Your task to perform on an android device: open wifi settings Image 0: 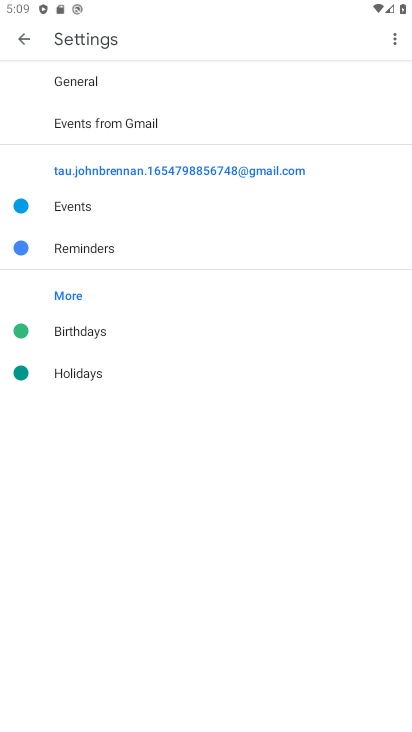
Step 0: click (20, 43)
Your task to perform on an android device: open wifi settings Image 1: 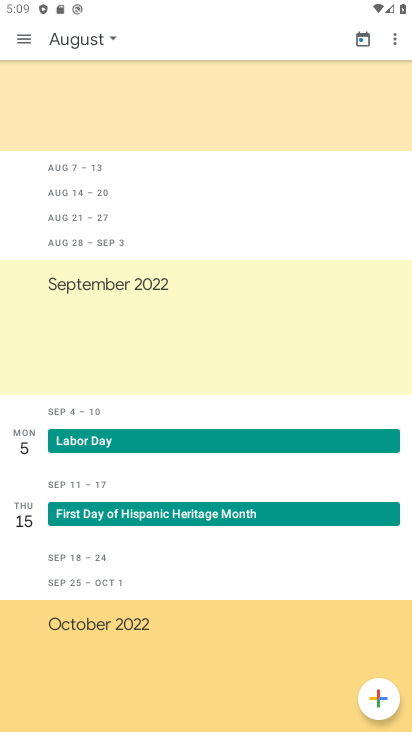
Step 1: press home button
Your task to perform on an android device: open wifi settings Image 2: 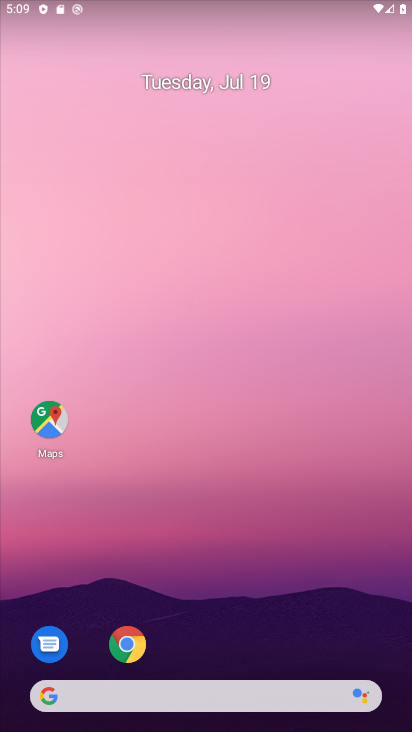
Step 2: drag from (274, 502) to (272, 140)
Your task to perform on an android device: open wifi settings Image 3: 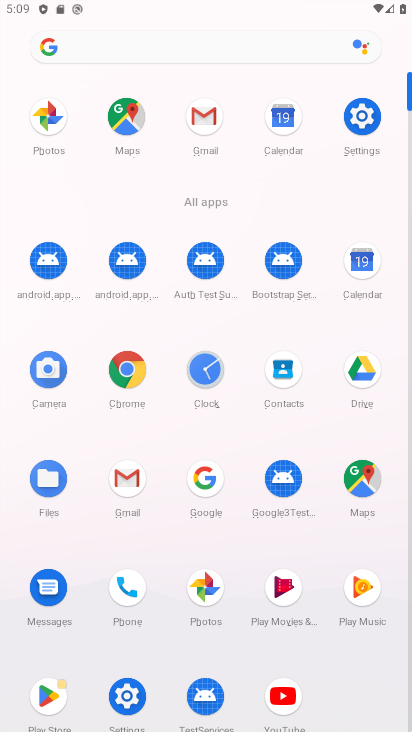
Step 3: click (367, 128)
Your task to perform on an android device: open wifi settings Image 4: 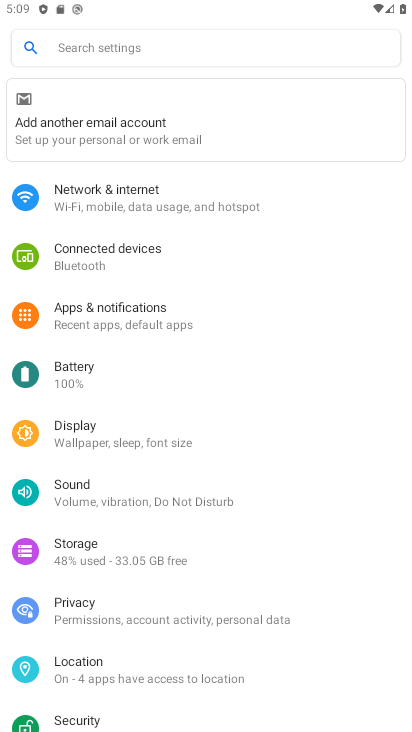
Step 4: click (138, 193)
Your task to perform on an android device: open wifi settings Image 5: 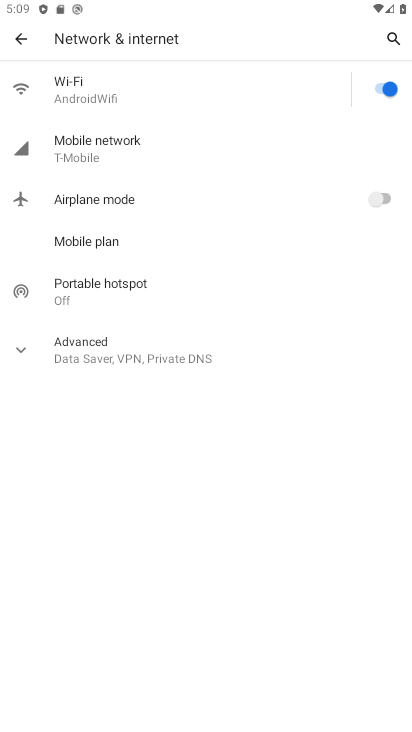
Step 5: task complete